Your task to perform on an android device: Open Reddit.com Image 0: 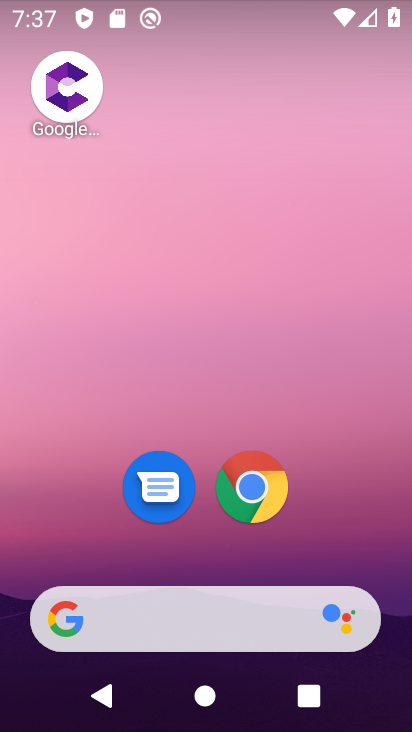
Step 0: click (263, 486)
Your task to perform on an android device: Open Reddit.com Image 1: 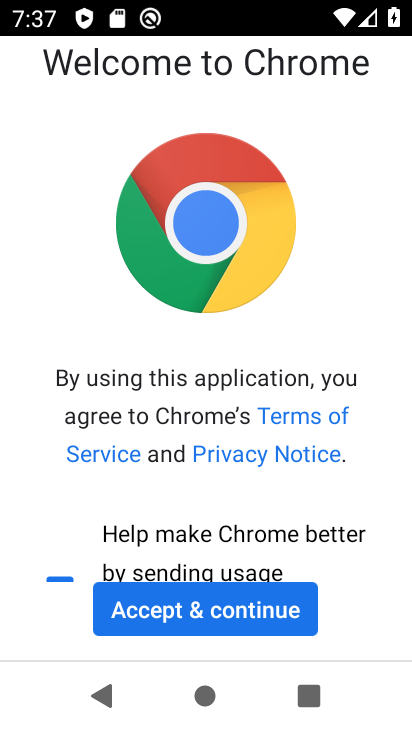
Step 1: click (156, 610)
Your task to perform on an android device: Open Reddit.com Image 2: 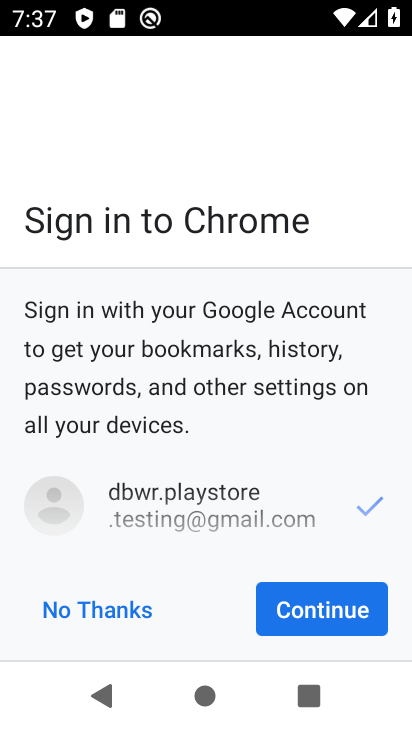
Step 2: click (329, 610)
Your task to perform on an android device: Open Reddit.com Image 3: 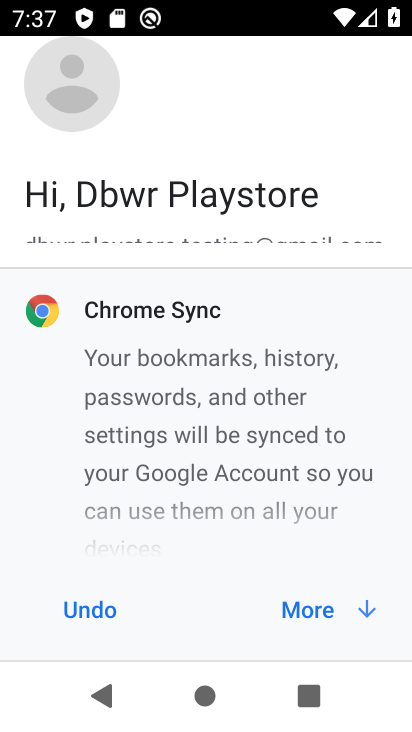
Step 3: click (329, 608)
Your task to perform on an android device: Open Reddit.com Image 4: 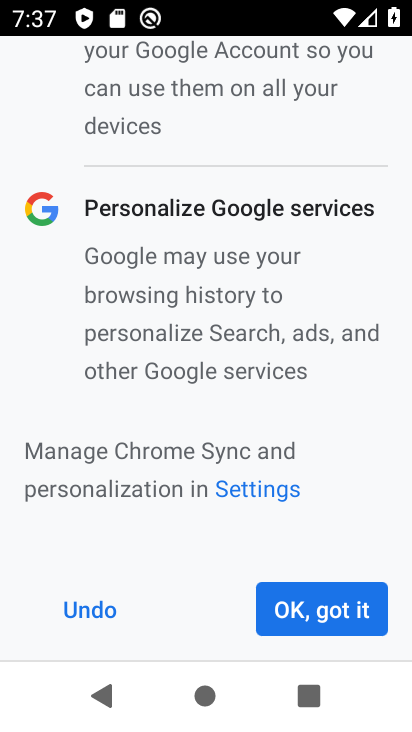
Step 4: click (324, 594)
Your task to perform on an android device: Open Reddit.com Image 5: 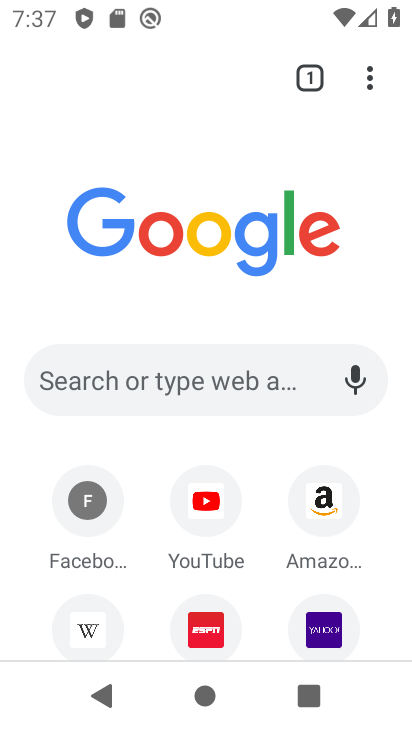
Step 5: click (189, 372)
Your task to perform on an android device: Open Reddit.com Image 6: 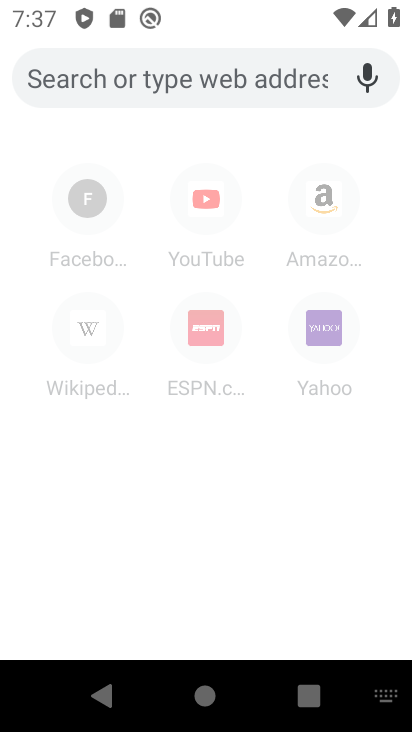
Step 6: type "Reddit.com"
Your task to perform on an android device: Open Reddit.com Image 7: 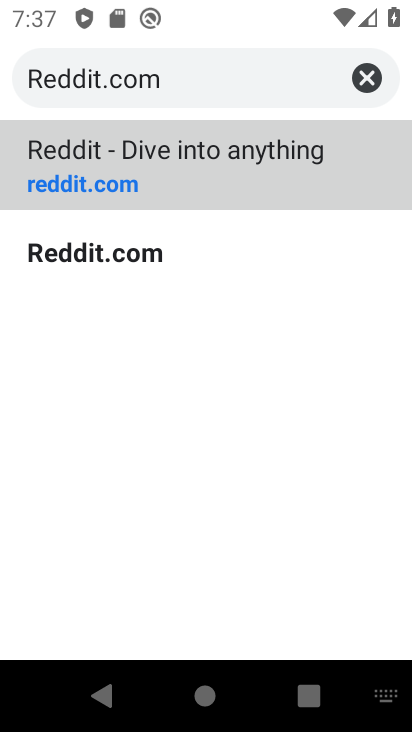
Step 7: click (137, 250)
Your task to perform on an android device: Open Reddit.com Image 8: 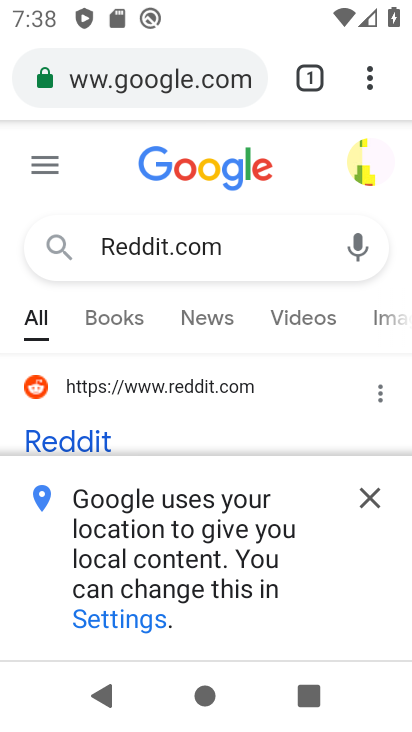
Step 8: click (375, 504)
Your task to perform on an android device: Open Reddit.com Image 9: 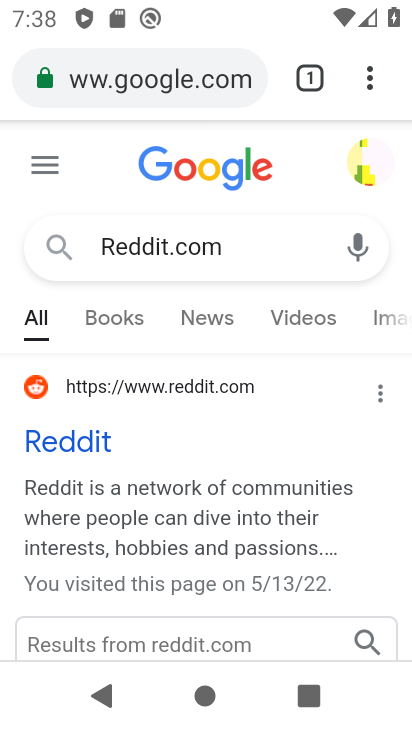
Step 9: task complete